Your task to perform on an android device: Open Reddit.com Image 0: 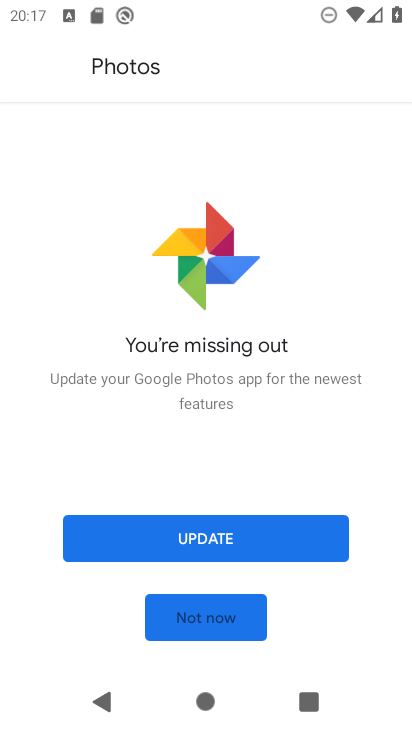
Step 0: press home button
Your task to perform on an android device: Open Reddit.com Image 1: 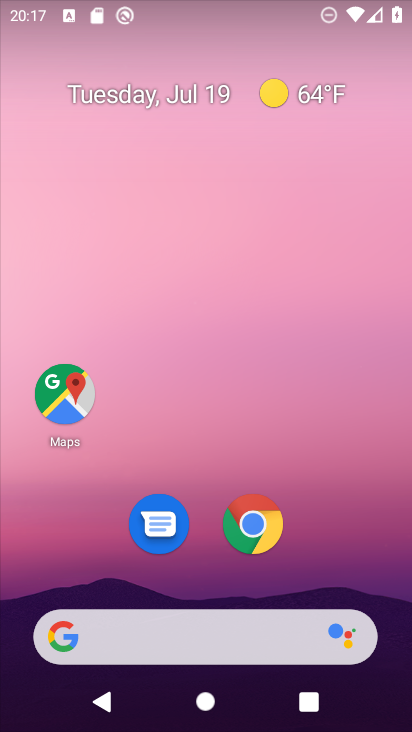
Step 1: click (243, 650)
Your task to perform on an android device: Open Reddit.com Image 2: 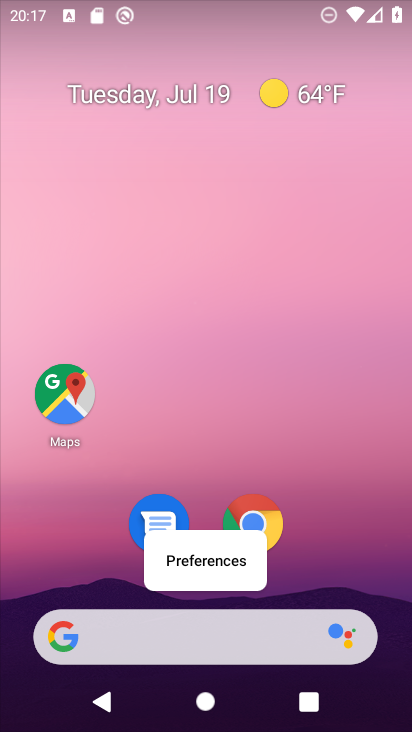
Step 2: click (226, 650)
Your task to perform on an android device: Open Reddit.com Image 3: 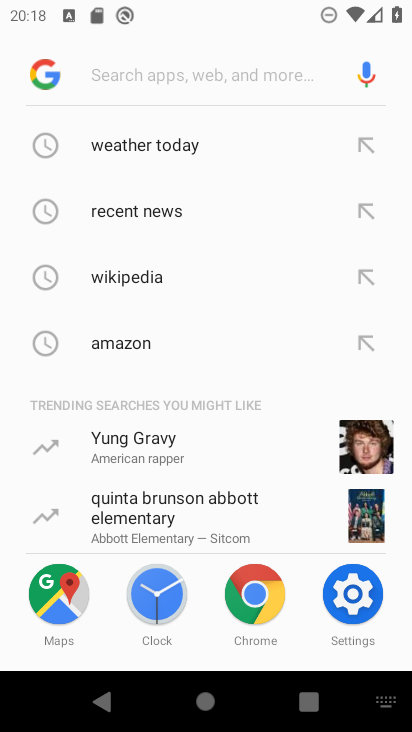
Step 3: type "reddit.com"
Your task to perform on an android device: Open Reddit.com Image 4: 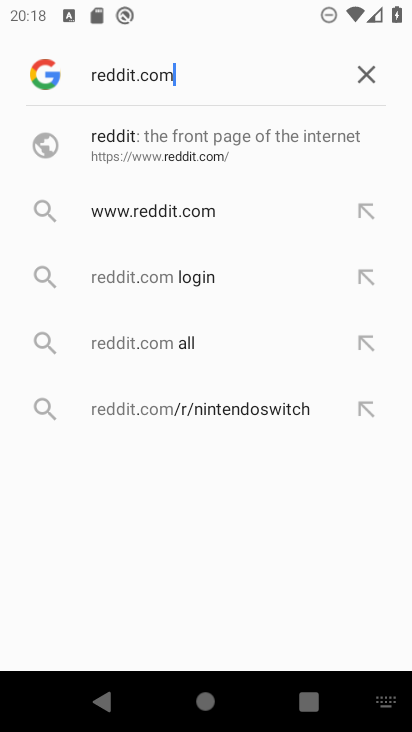
Step 4: click (196, 153)
Your task to perform on an android device: Open Reddit.com Image 5: 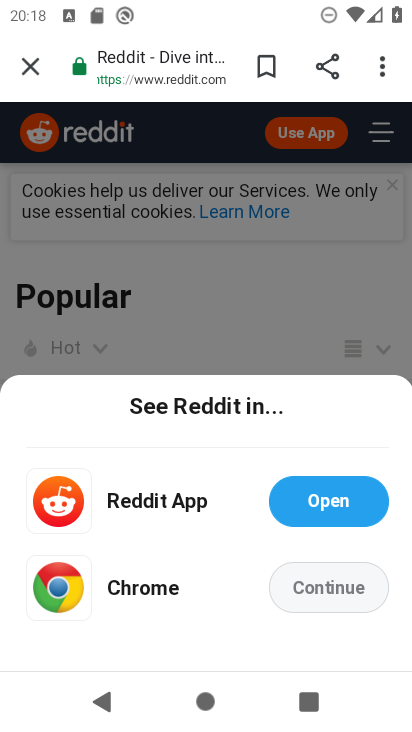
Step 5: click (345, 581)
Your task to perform on an android device: Open Reddit.com Image 6: 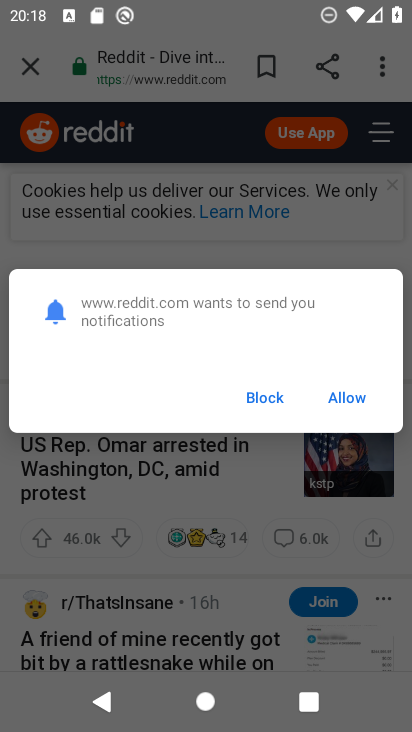
Step 6: click (272, 397)
Your task to perform on an android device: Open Reddit.com Image 7: 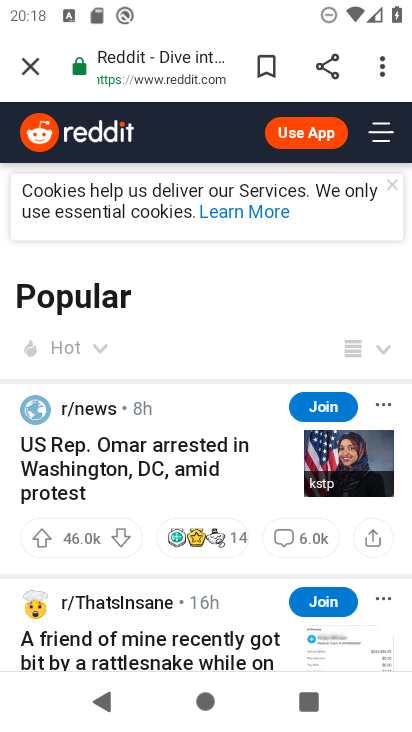
Step 7: task complete